Your task to perform on an android device: open app "Move to iOS" (install if not already installed) Image 0: 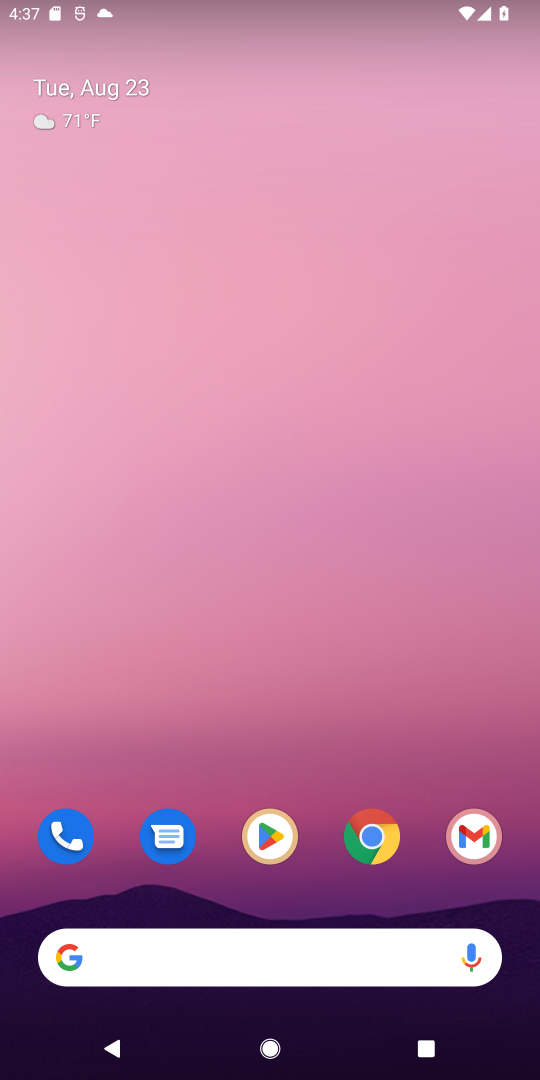
Step 0: click (271, 838)
Your task to perform on an android device: open app "Move to iOS" (install if not already installed) Image 1: 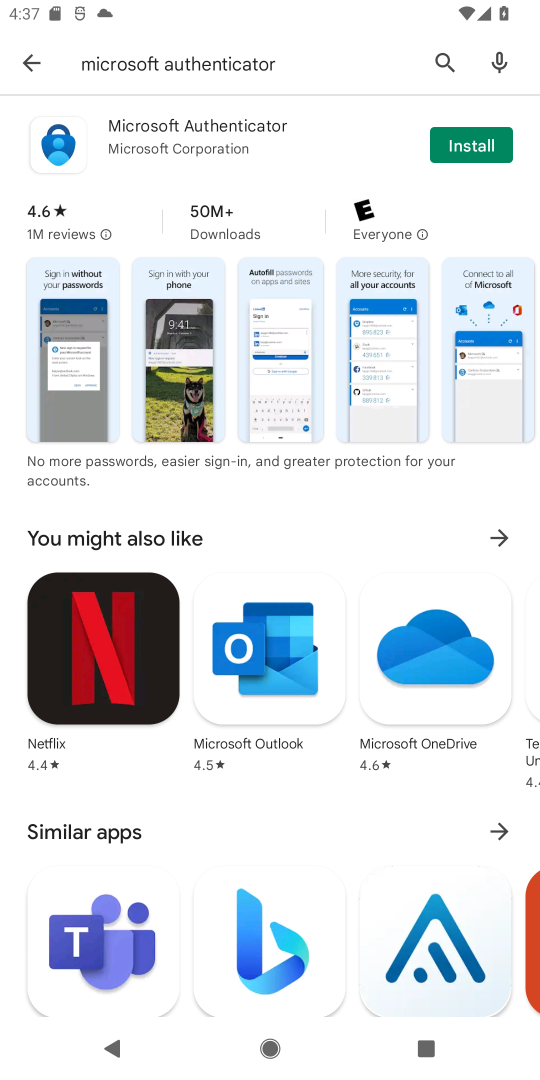
Step 1: click (439, 65)
Your task to perform on an android device: open app "Move to iOS" (install if not already installed) Image 2: 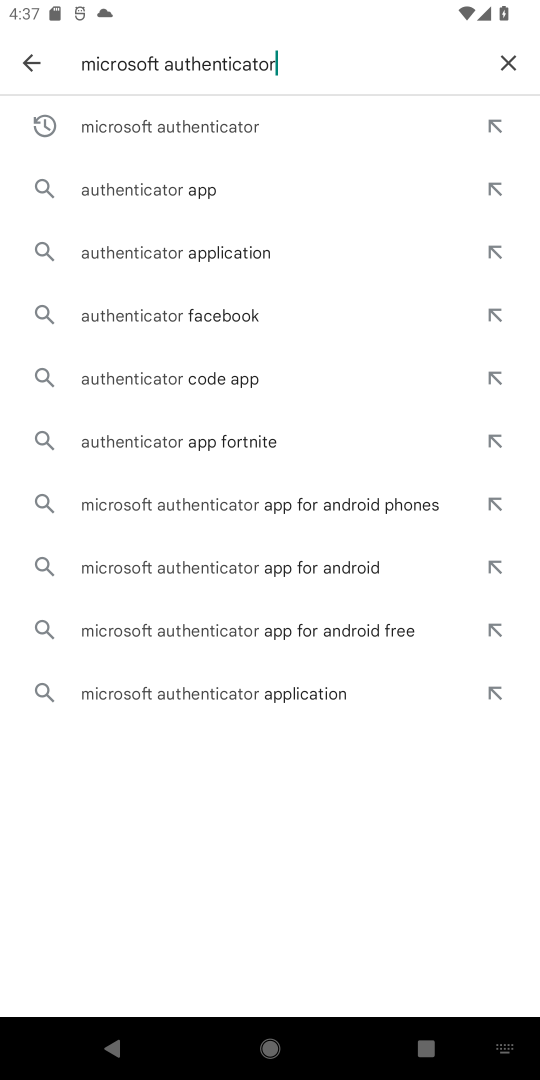
Step 2: click (511, 59)
Your task to perform on an android device: open app "Move to iOS" (install if not already installed) Image 3: 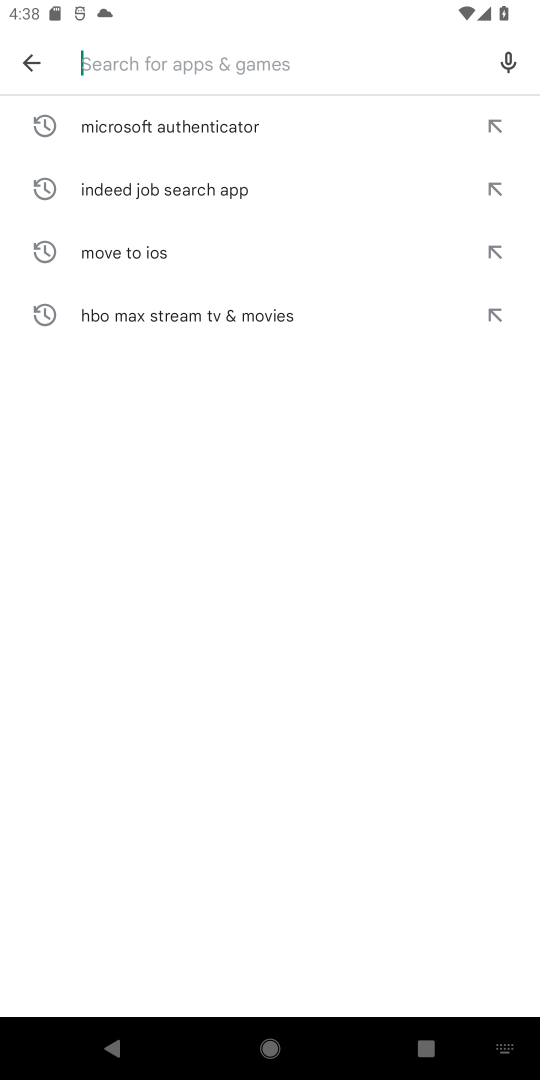
Step 3: type "Move to iOS"
Your task to perform on an android device: open app "Move to iOS" (install if not already installed) Image 4: 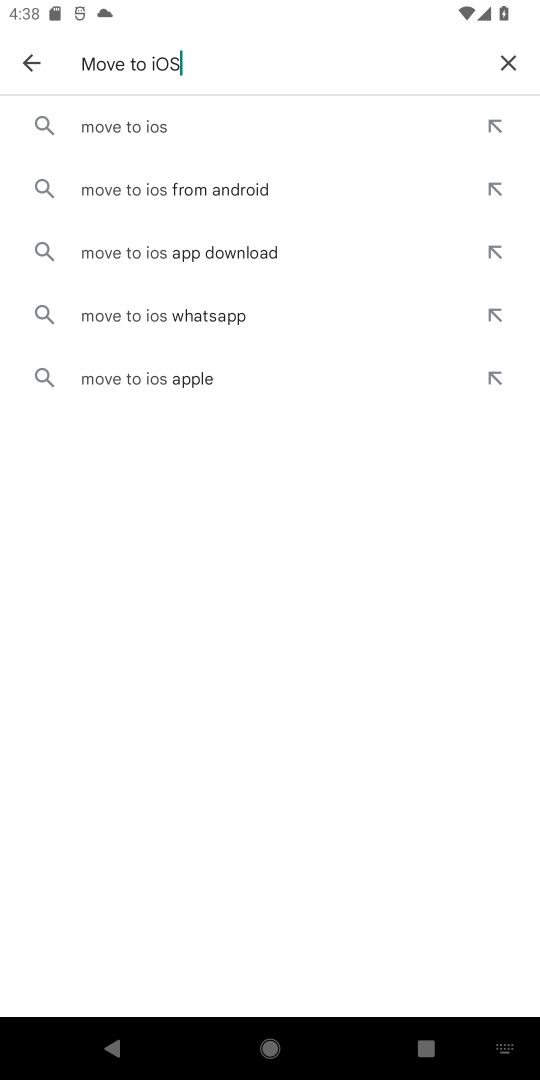
Step 4: click (117, 121)
Your task to perform on an android device: open app "Move to iOS" (install if not already installed) Image 5: 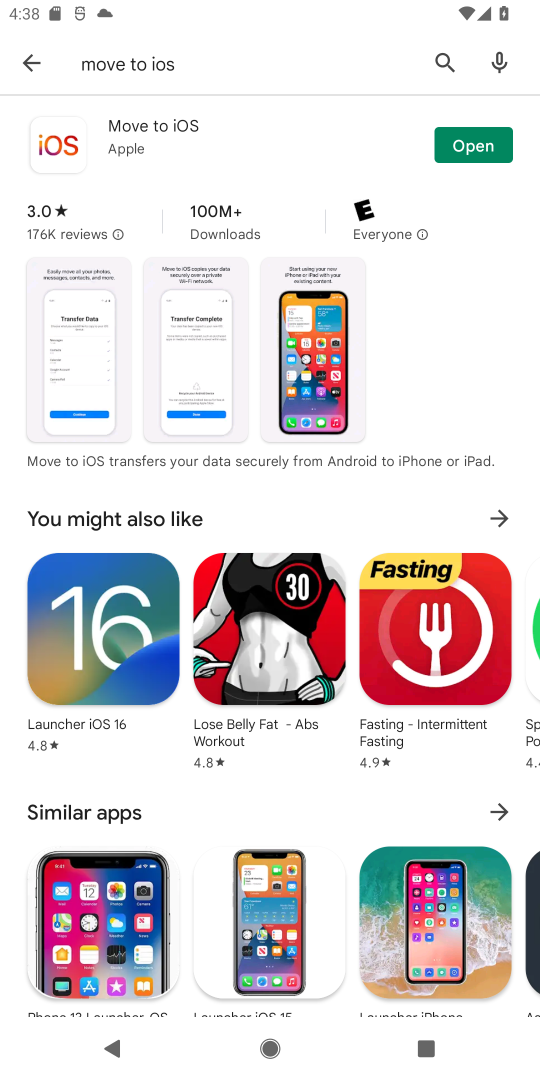
Step 5: click (475, 149)
Your task to perform on an android device: open app "Move to iOS" (install if not already installed) Image 6: 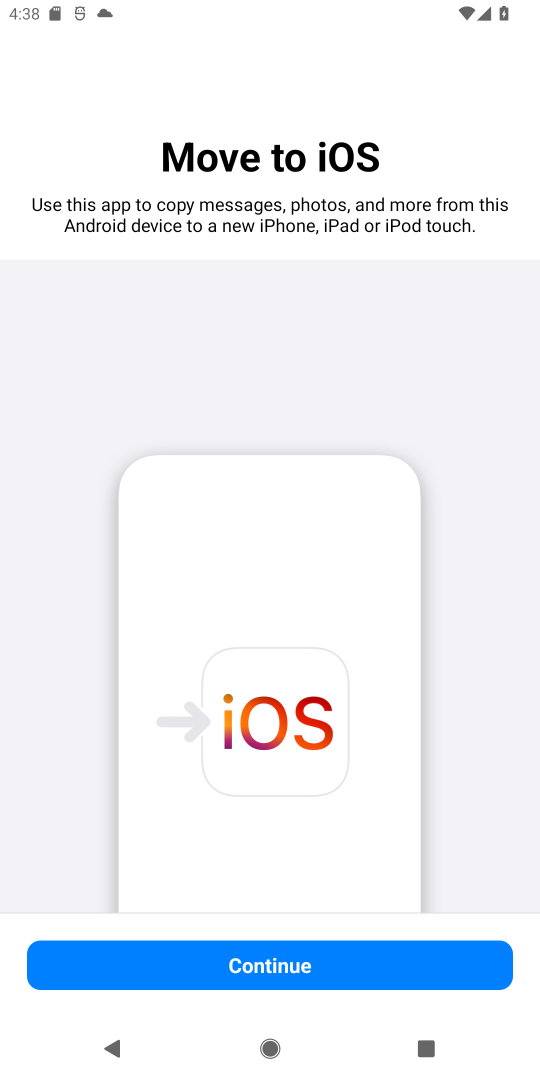
Step 6: task complete